Your task to perform on an android device: empty trash in the gmail app Image 0: 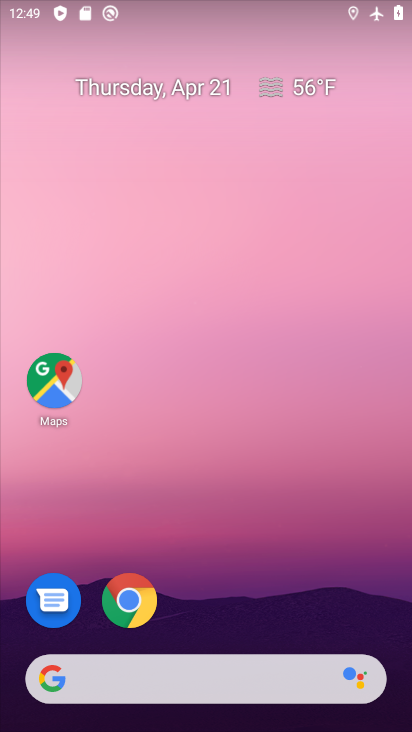
Step 0: drag from (373, 431) to (352, 252)
Your task to perform on an android device: empty trash in the gmail app Image 1: 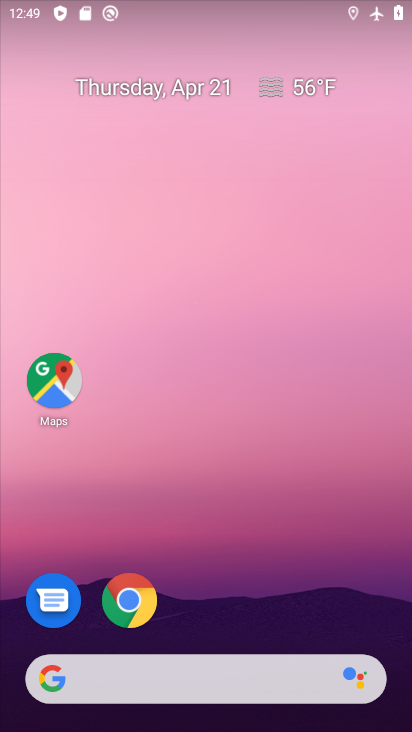
Step 1: drag from (376, 613) to (379, 251)
Your task to perform on an android device: empty trash in the gmail app Image 2: 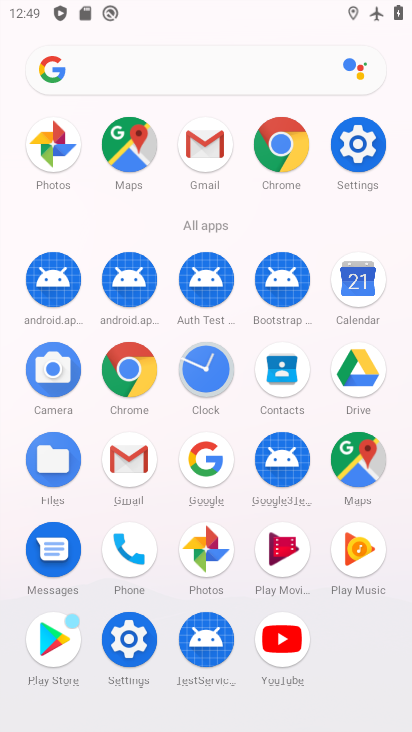
Step 2: click (375, 153)
Your task to perform on an android device: empty trash in the gmail app Image 3: 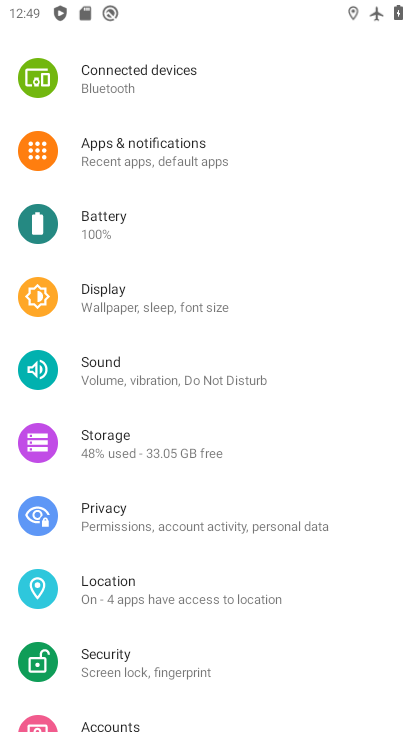
Step 3: drag from (286, 209) to (243, 565)
Your task to perform on an android device: empty trash in the gmail app Image 4: 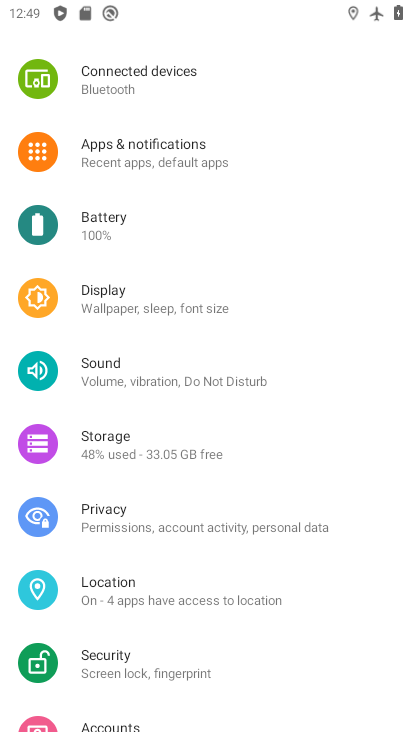
Step 4: drag from (325, 396) to (328, 526)
Your task to perform on an android device: empty trash in the gmail app Image 5: 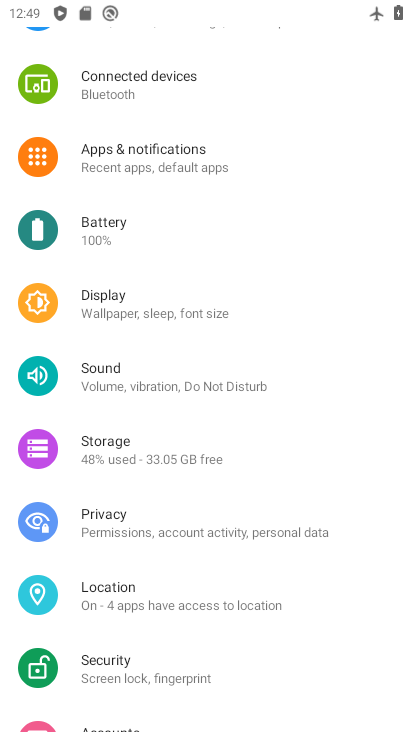
Step 5: drag from (322, 235) to (345, 617)
Your task to perform on an android device: empty trash in the gmail app Image 6: 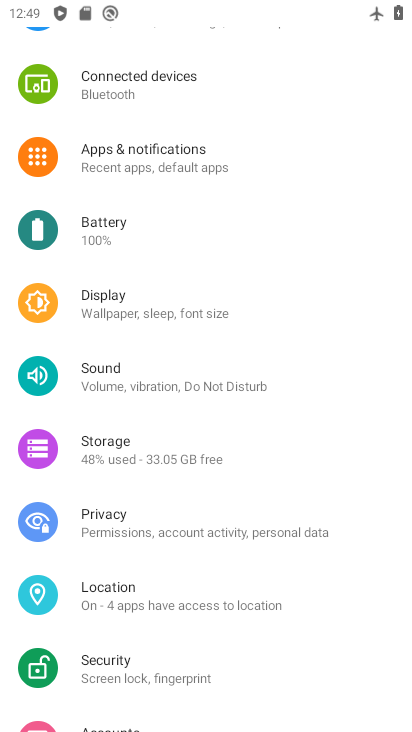
Step 6: drag from (380, 178) to (394, 575)
Your task to perform on an android device: empty trash in the gmail app Image 7: 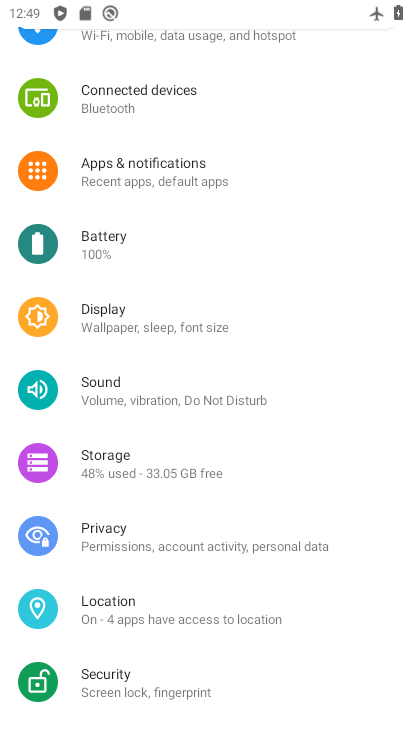
Step 7: drag from (369, 572) to (369, 644)
Your task to perform on an android device: empty trash in the gmail app Image 8: 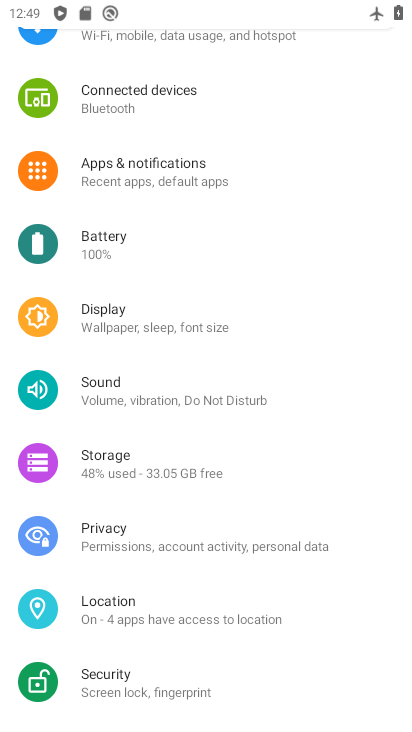
Step 8: drag from (330, 149) to (329, 635)
Your task to perform on an android device: empty trash in the gmail app Image 9: 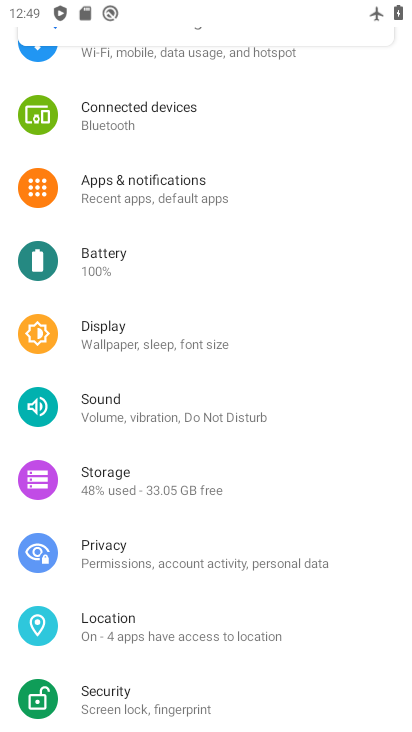
Step 9: click (206, 53)
Your task to perform on an android device: empty trash in the gmail app Image 10: 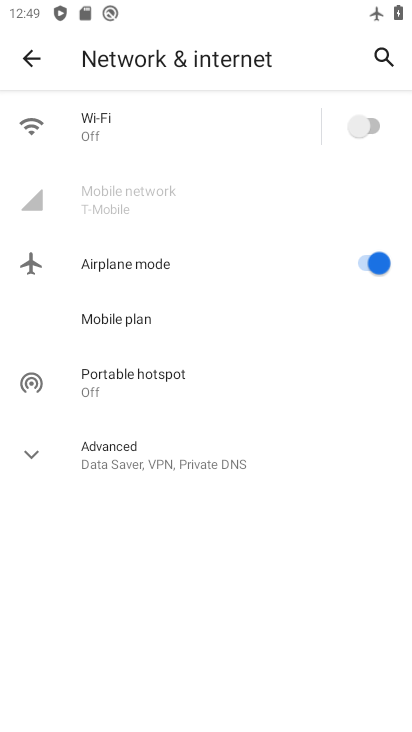
Step 10: click (372, 117)
Your task to perform on an android device: empty trash in the gmail app Image 11: 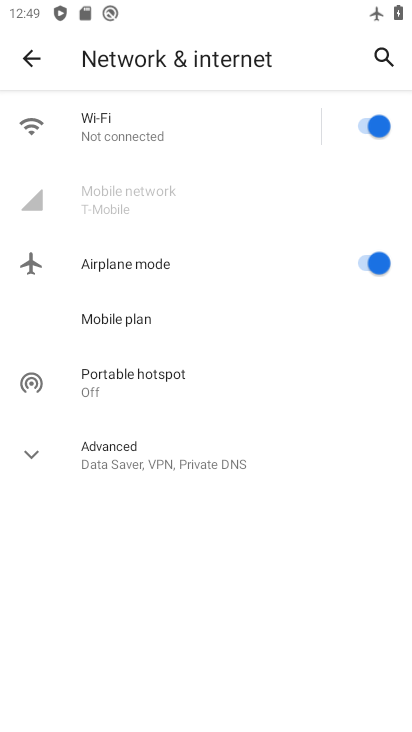
Step 11: click (362, 269)
Your task to perform on an android device: empty trash in the gmail app Image 12: 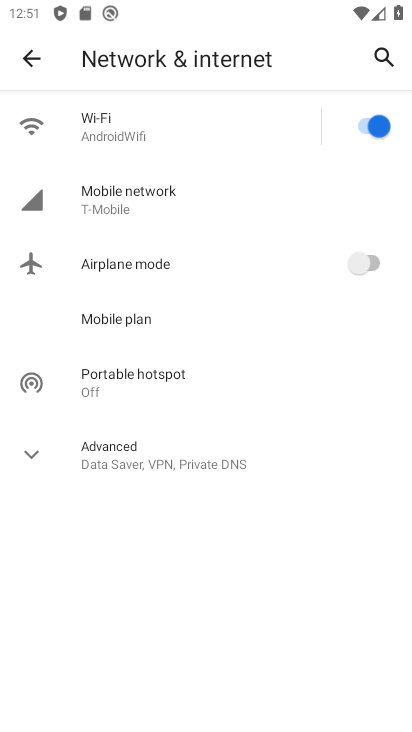
Step 12: press back button
Your task to perform on an android device: empty trash in the gmail app Image 13: 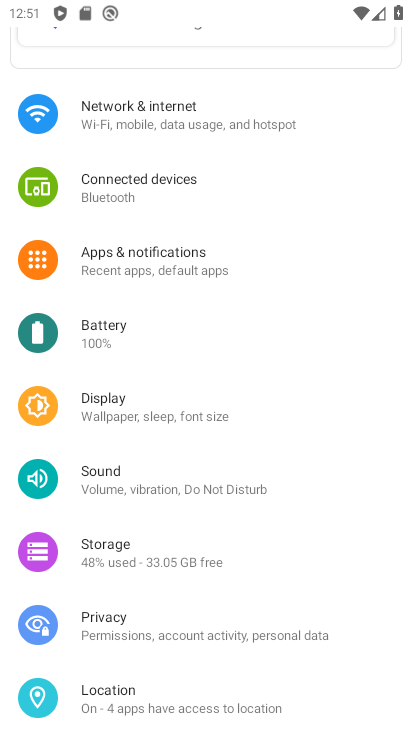
Step 13: press back button
Your task to perform on an android device: empty trash in the gmail app Image 14: 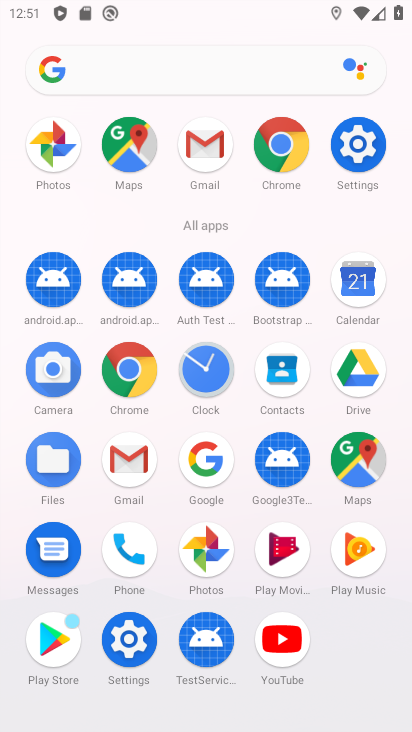
Step 14: click (216, 162)
Your task to perform on an android device: empty trash in the gmail app Image 15: 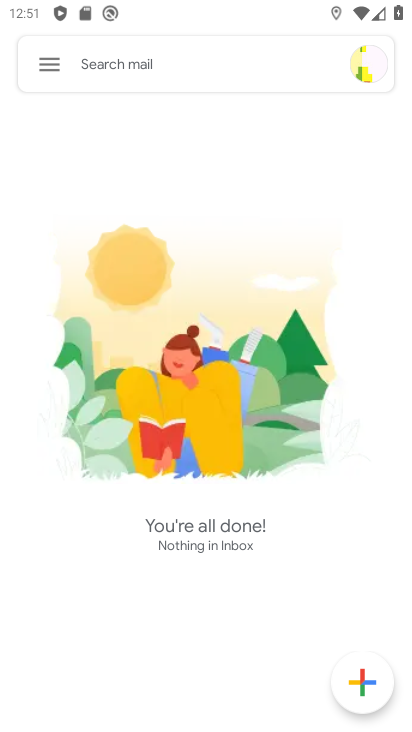
Step 15: click (38, 55)
Your task to perform on an android device: empty trash in the gmail app Image 16: 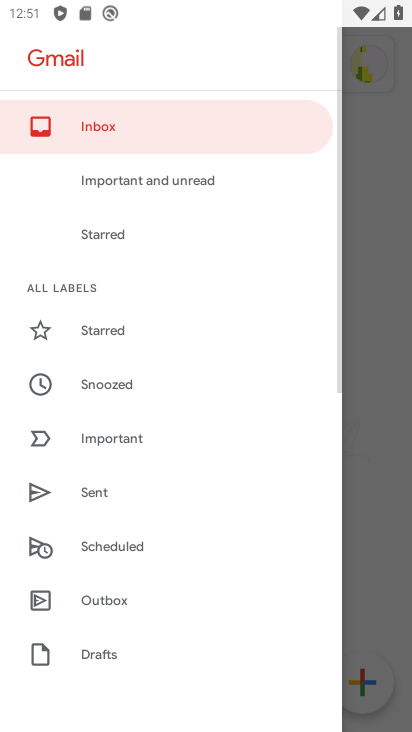
Step 16: drag from (228, 615) to (253, 320)
Your task to perform on an android device: empty trash in the gmail app Image 17: 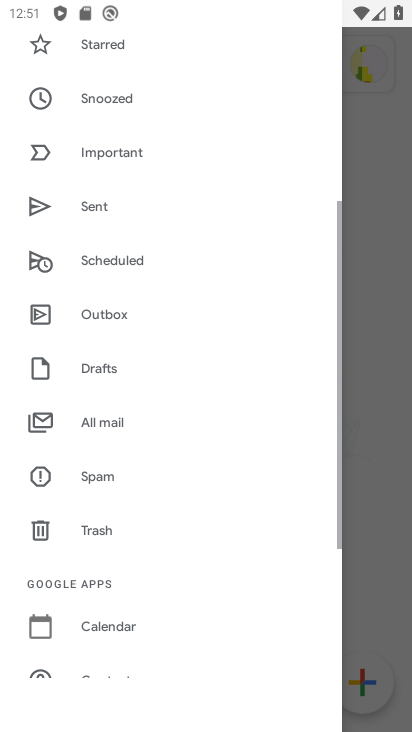
Step 17: drag from (252, 508) to (268, 356)
Your task to perform on an android device: empty trash in the gmail app Image 18: 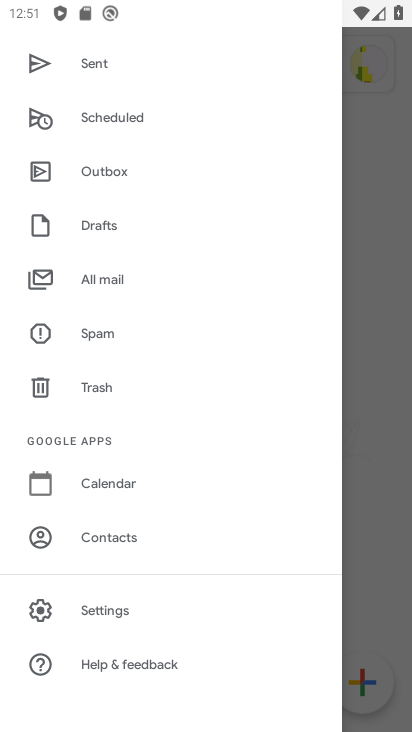
Step 18: drag from (258, 369) to (258, 307)
Your task to perform on an android device: empty trash in the gmail app Image 19: 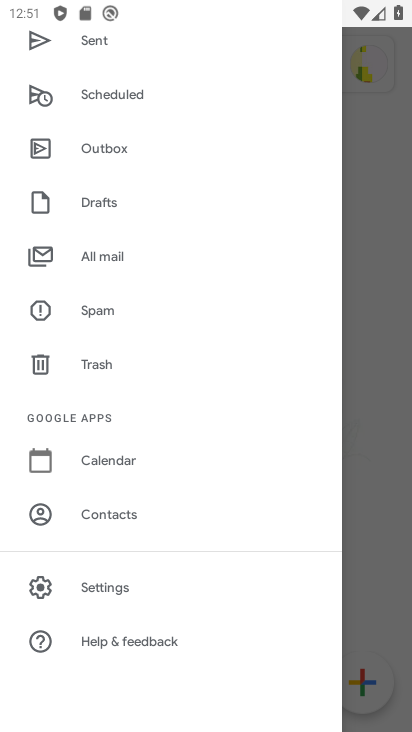
Step 19: click (279, 233)
Your task to perform on an android device: empty trash in the gmail app Image 20: 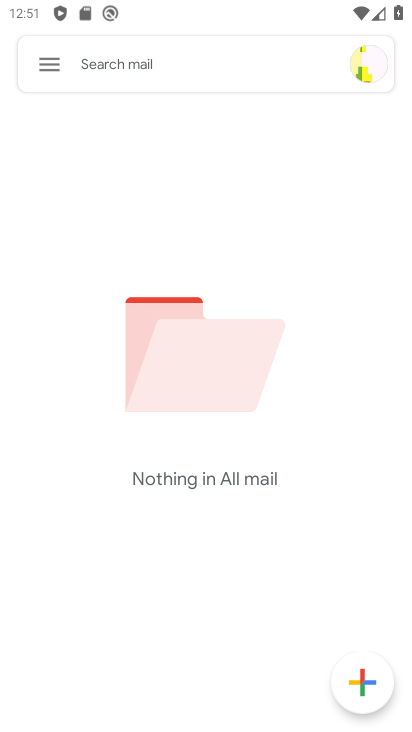
Step 20: click (55, 64)
Your task to perform on an android device: empty trash in the gmail app Image 21: 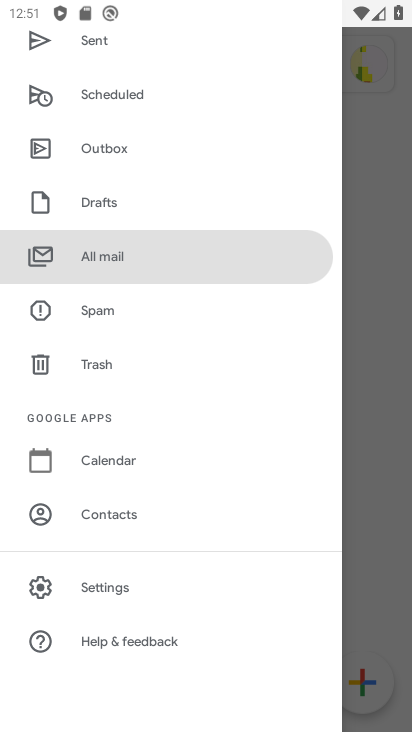
Step 21: click (96, 356)
Your task to perform on an android device: empty trash in the gmail app Image 22: 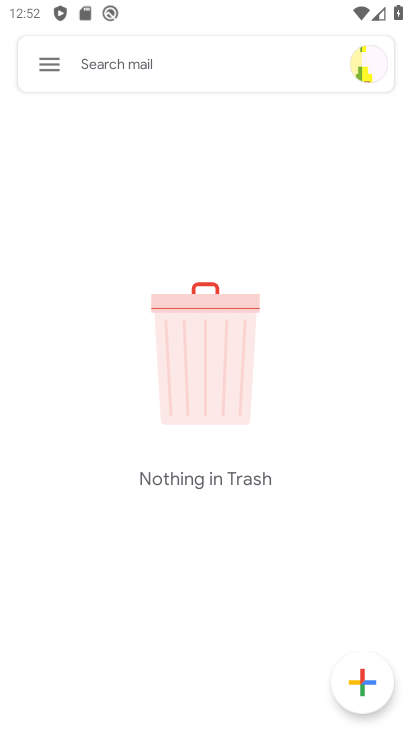
Step 22: task complete